Your task to perform on an android device: change your default location settings in chrome Image 0: 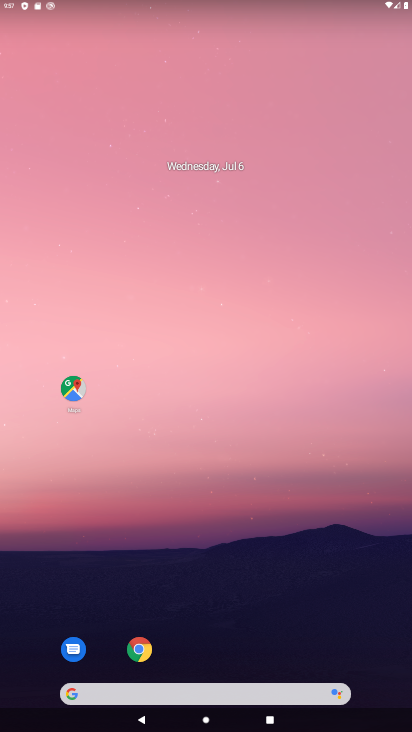
Step 0: press home button
Your task to perform on an android device: change your default location settings in chrome Image 1: 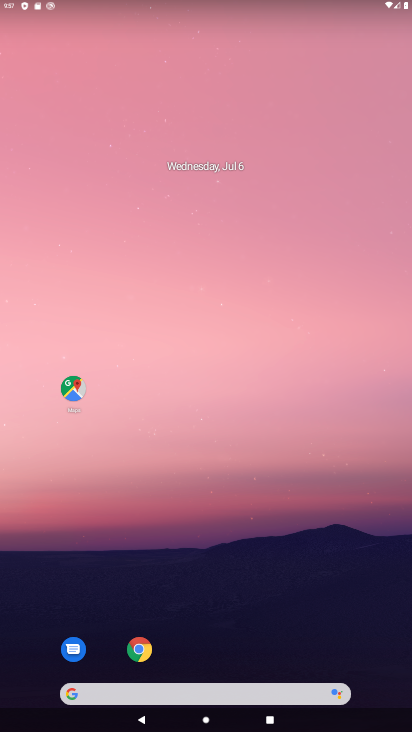
Step 1: click (141, 650)
Your task to perform on an android device: change your default location settings in chrome Image 2: 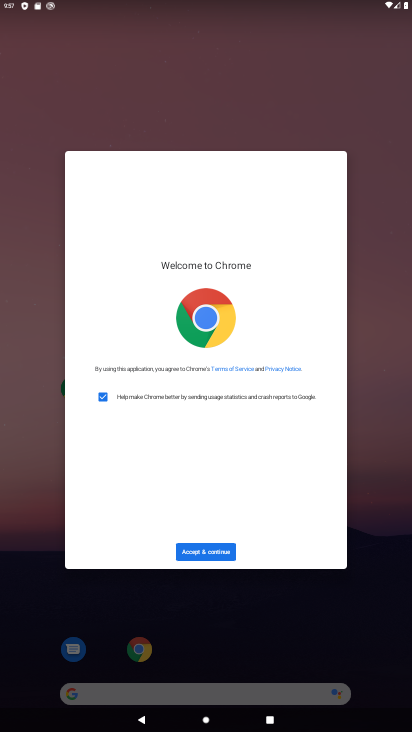
Step 2: click (208, 551)
Your task to perform on an android device: change your default location settings in chrome Image 3: 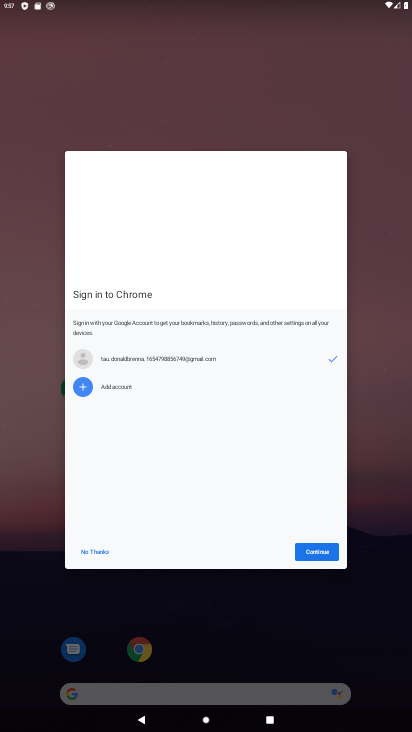
Step 3: click (311, 555)
Your task to perform on an android device: change your default location settings in chrome Image 4: 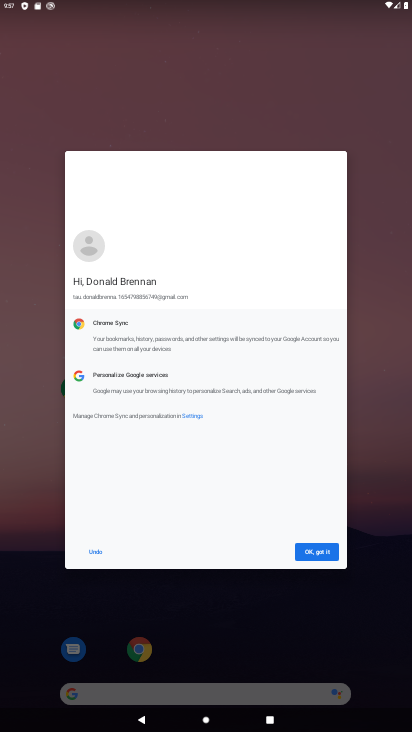
Step 4: click (326, 549)
Your task to perform on an android device: change your default location settings in chrome Image 5: 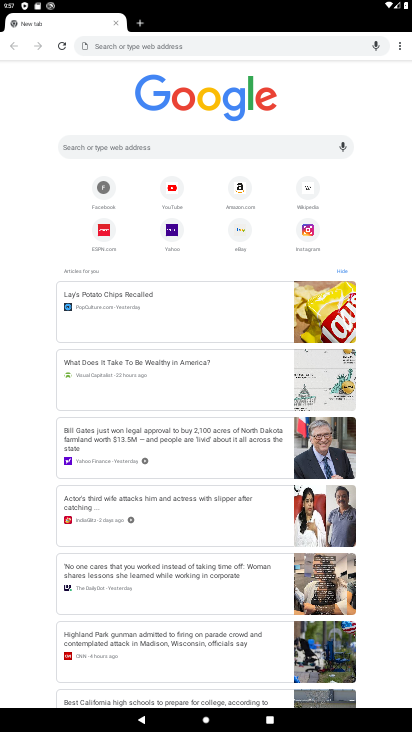
Step 5: click (401, 45)
Your task to perform on an android device: change your default location settings in chrome Image 6: 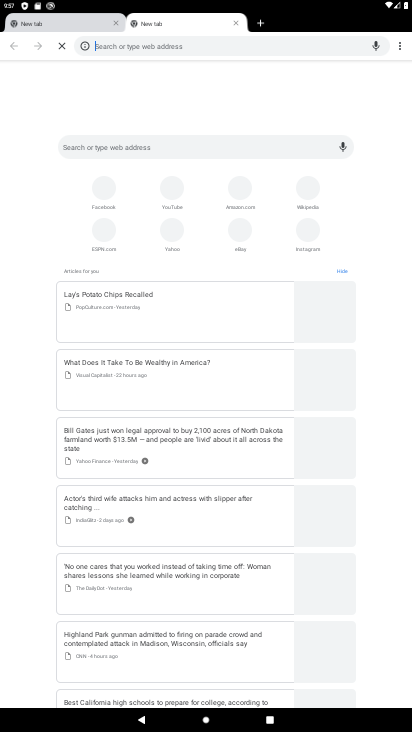
Step 6: click (401, 45)
Your task to perform on an android device: change your default location settings in chrome Image 7: 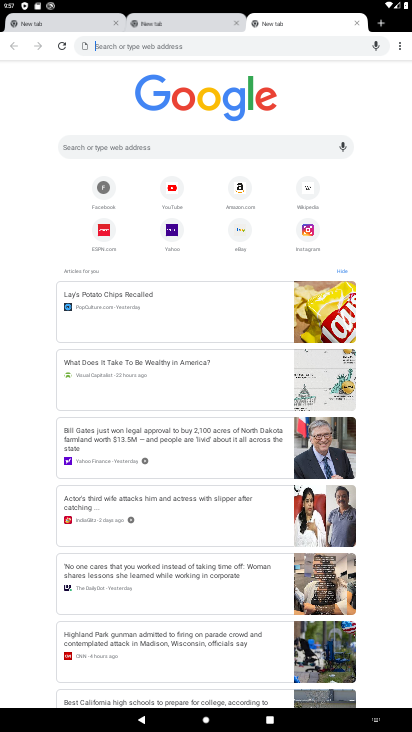
Step 7: click (401, 45)
Your task to perform on an android device: change your default location settings in chrome Image 8: 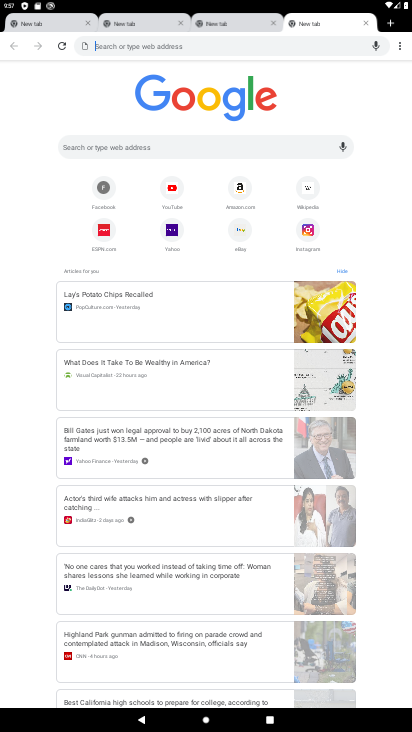
Step 8: drag from (401, 45) to (319, 211)
Your task to perform on an android device: change your default location settings in chrome Image 9: 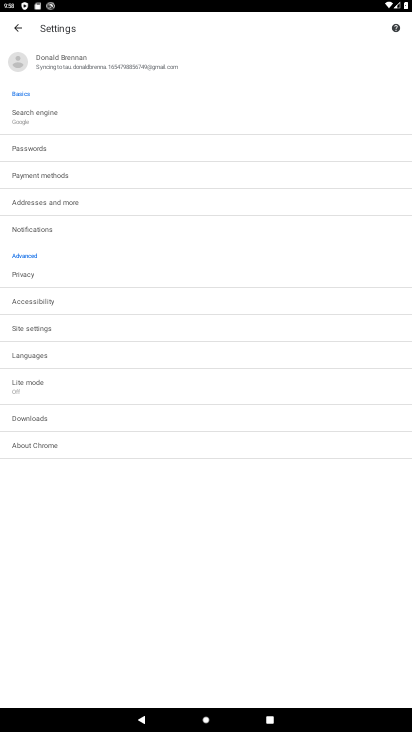
Step 9: click (33, 328)
Your task to perform on an android device: change your default location settings in chrome Image 10: 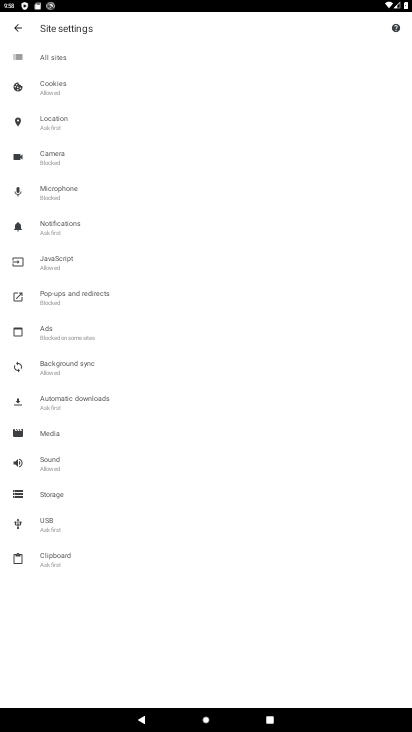
Step 10: click (54, 127)
Your task to perform on an android device: change your default location settings in chrome Image 11: 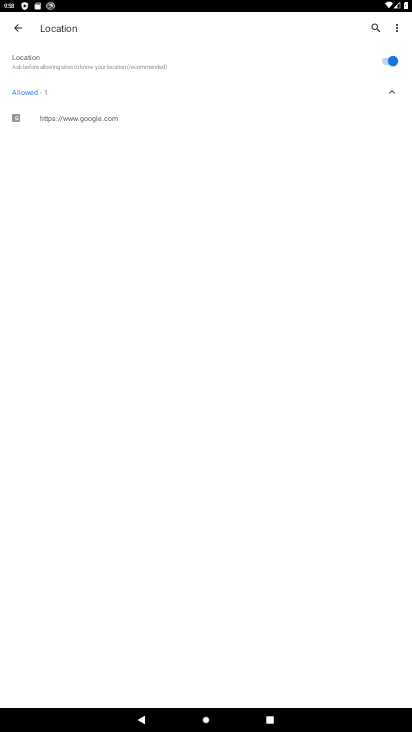
Step 11: click (392, 61)
Your task to perform on an android device: change your default location settings in chrome Image 12: 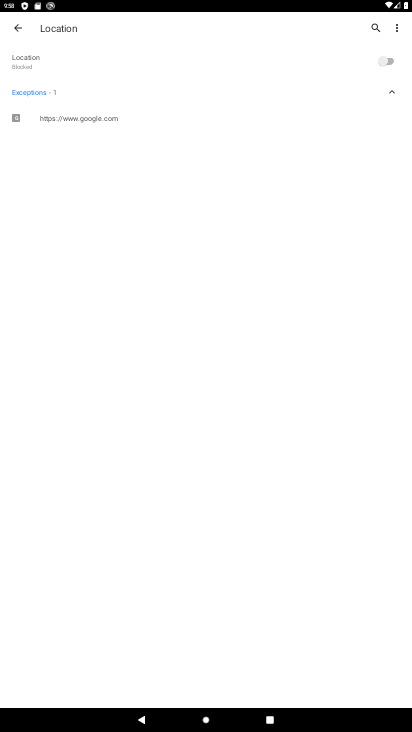
Step 12: task complete